Your task to perform on an android device: Open calendar and show me the second week of next month Image 0: 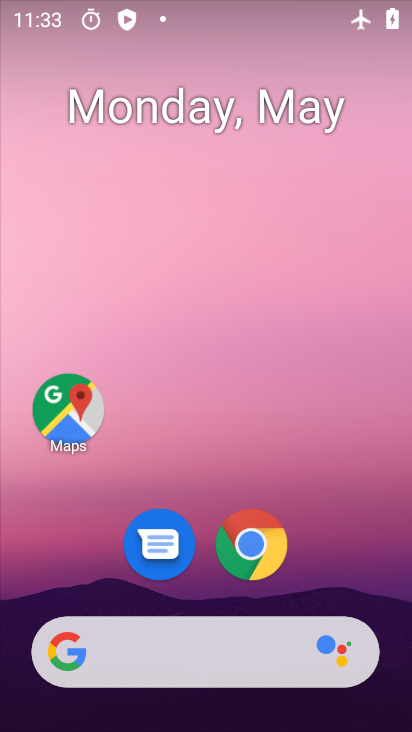
Step 0: drag from (357, 531) to (356, 94)
Your task to perform on an android device: Open calendar and show me the second week of next month Image 1: 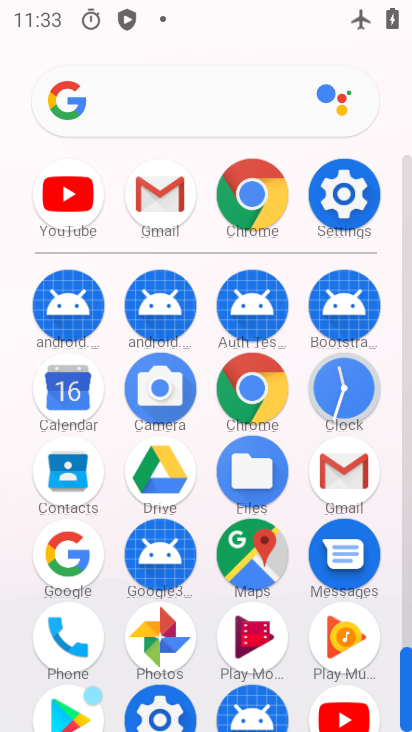
Step 1: click (80, 373)
Your task to perform on an android device: Open calendar and show me the second week of next month Image 2: 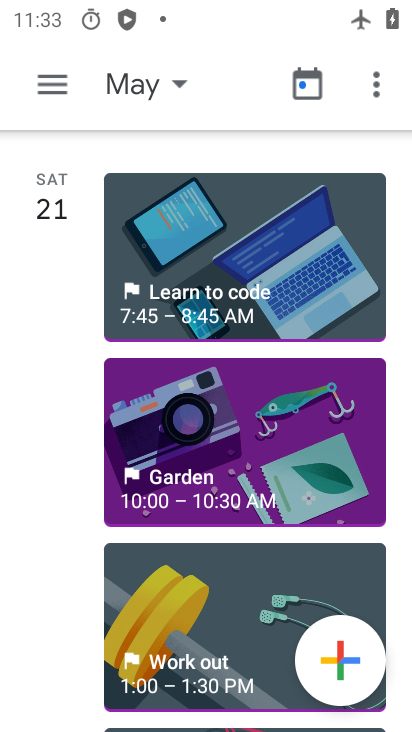
Step 2: click (121, 88)
Your task to perform on an android device: Open calendar and show me the second week of next month Image 3: 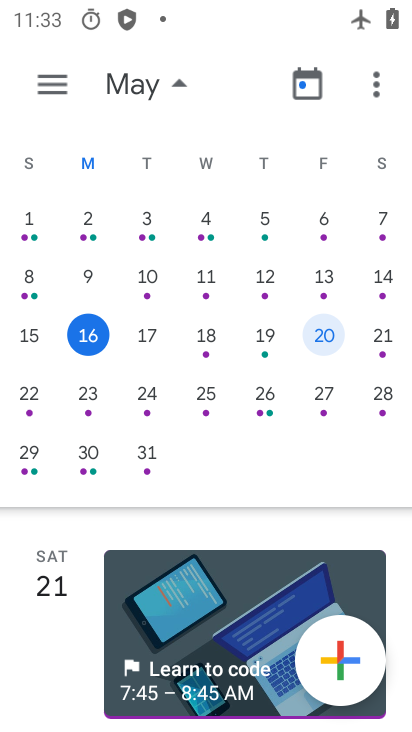
Step 3: drag from (317, 366) to (3, 330)
Your task to perform on an android device: Open calendar and show me the second week of next month Image 4: 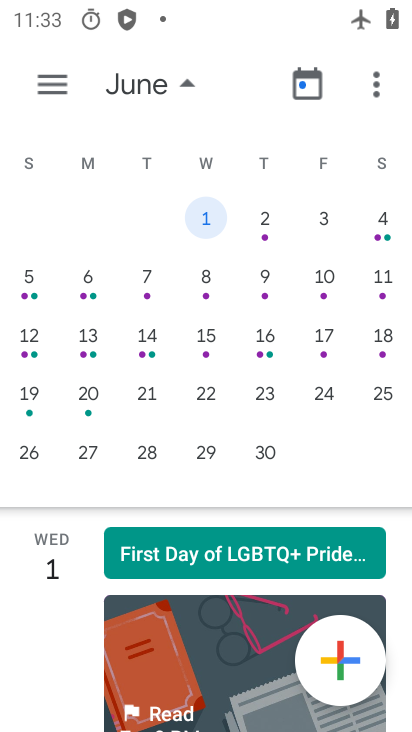
Step 4: click (34, 273)
Your task to perform on an android device: Open calendar and show me the second week of next month Image 5: 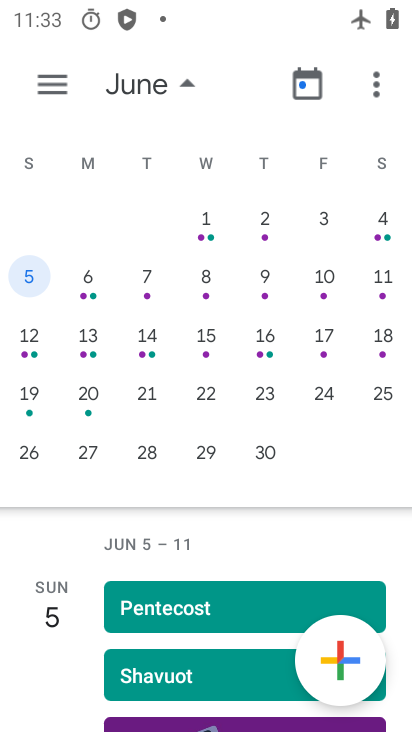
Step 5: task complete